Your task to perform on an android device: turn on sleep mode Image 0: 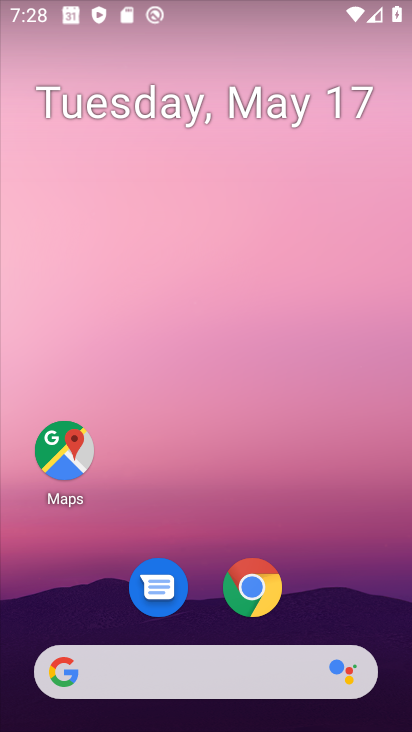
Step 0: drag from (277, 668) to (306, 238)
Your task to perform on an android device: turn on sleep mode Image 1: 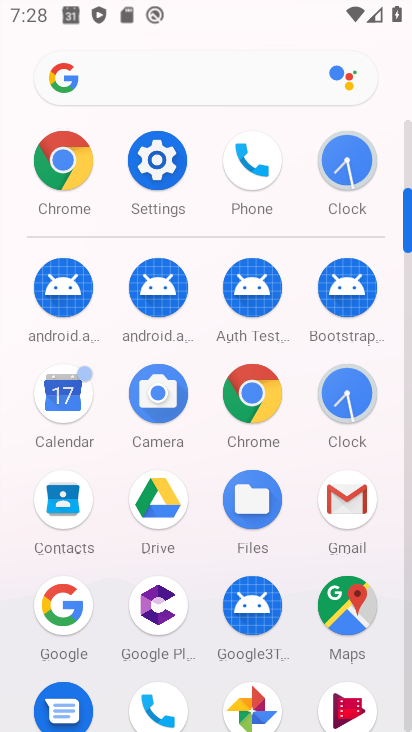
Step 1: click (164, 188)
Your task to perform on an android device: turn on sleep mode Image 2: 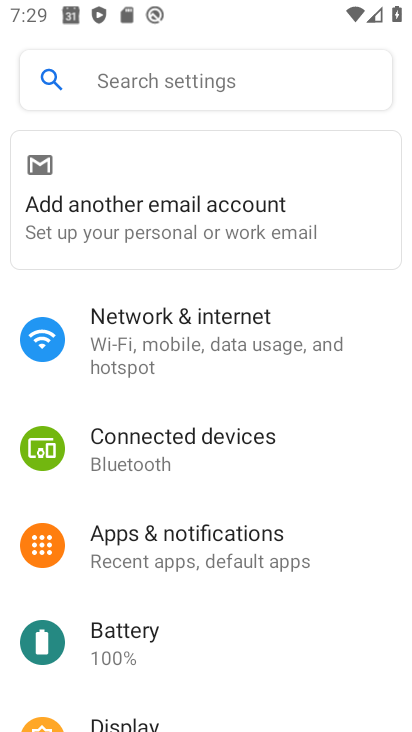
Step 2: click (112, 90)
Your task to perform on an android device: turn on sleep mode Image 3: 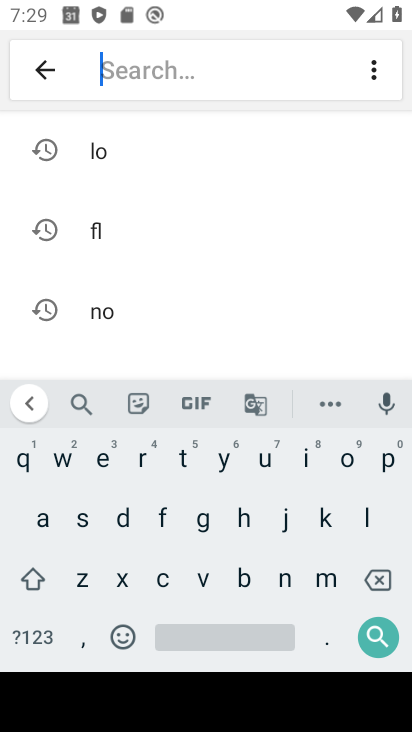
Step 3: click (72, 522)
Your task to perform on an android device: turn on sleep mode Image 4: 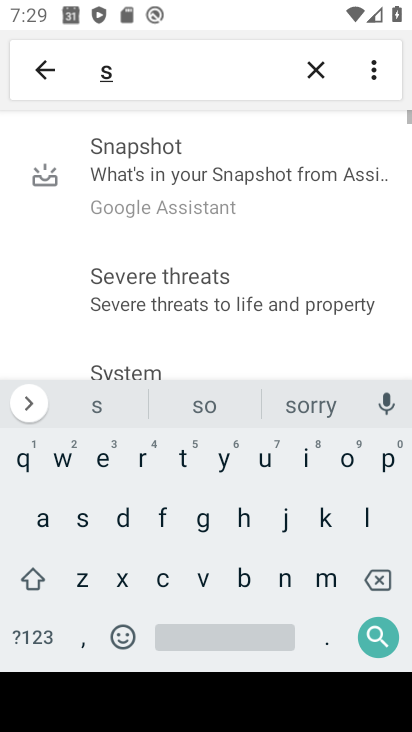
Step 4: click (369, 517)
Your task to perform on an android device: turn on sleep mode Image 5: 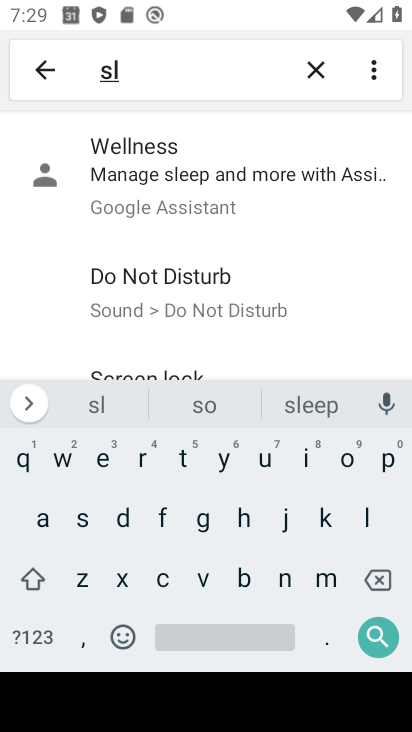
Step 5: click (177, 185)
Your task to perform on an android device: turn on sleep mode Image 6: 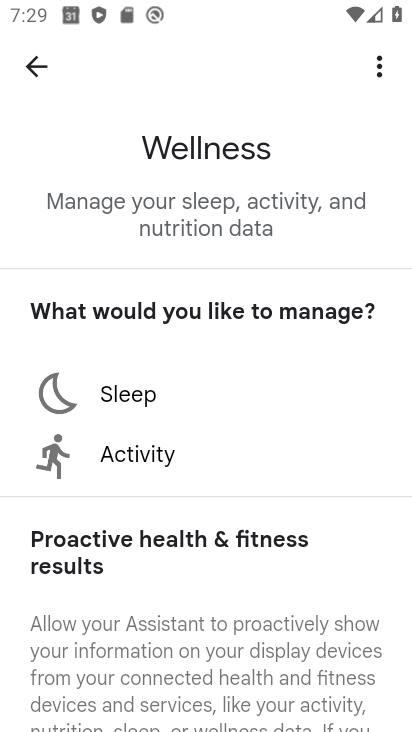
Step 6: click (97, 389)
Your task to perform on an android device: turn on sleep mode Image 7: 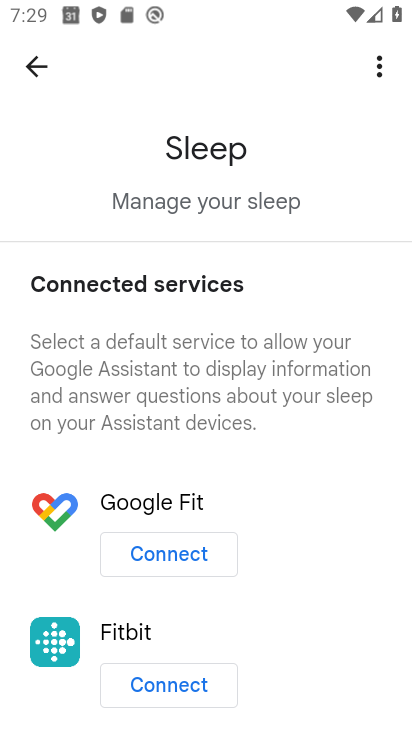
Step 7: task complete